Your task to perform on an android device: create a new album in the google photos Image 0: 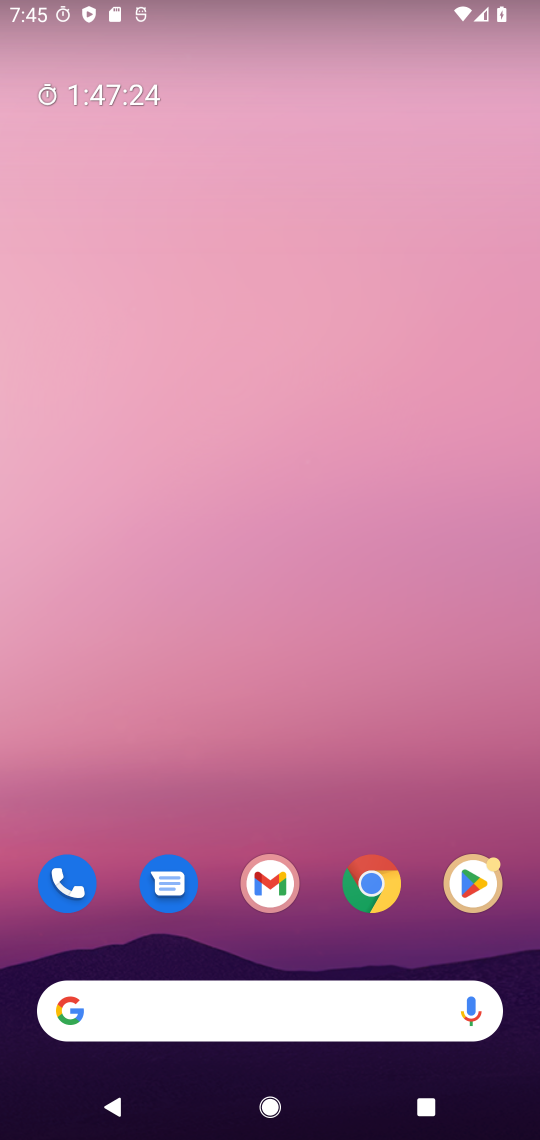
Step 0: drag from (257, 736) to (257, 281)
Your task to perform on an android device: create a new album in the google photos Image 1: 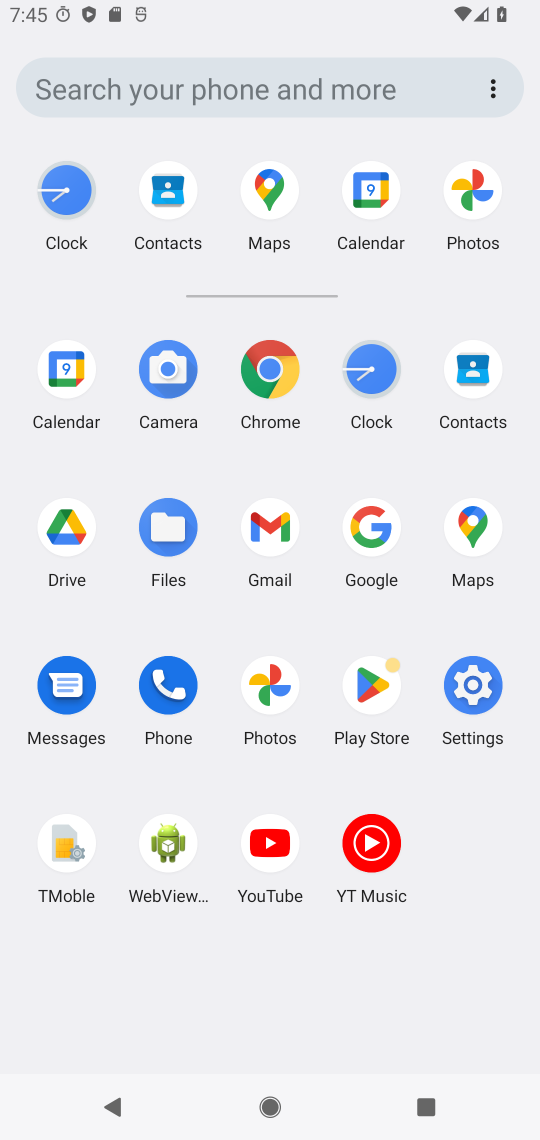
Step 1: click (462, 201)
Your task to perform on an android device: create a new album in the google photos Image 2: 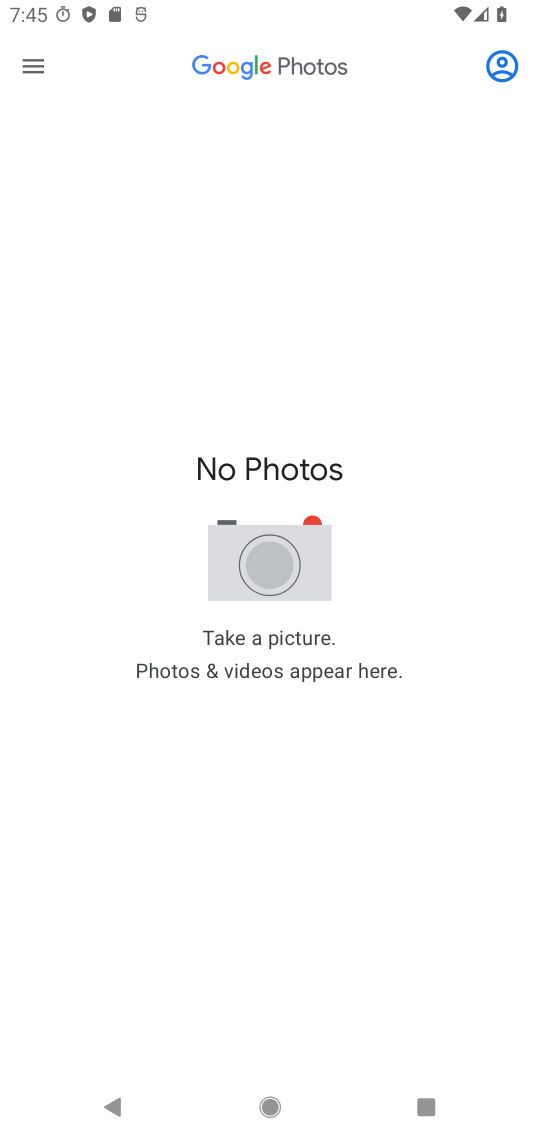
Step 2: click (38, 49)
Your task to perform on an android device: create a new album in the google photos Image 3: 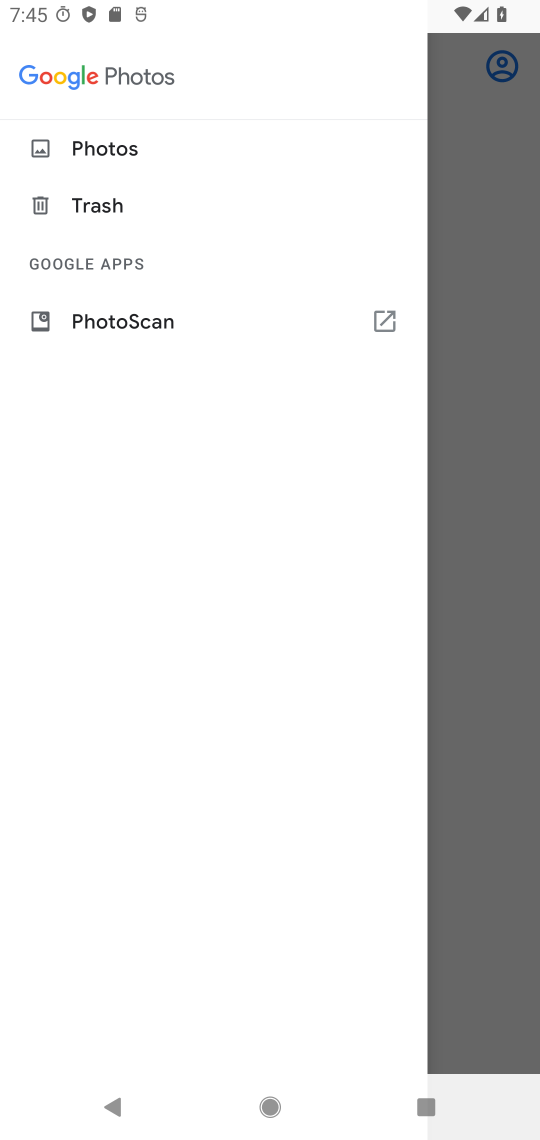
Step 3: click (137, 139)
Your task to perform on an android device: create a new album in the google photos Image 4: 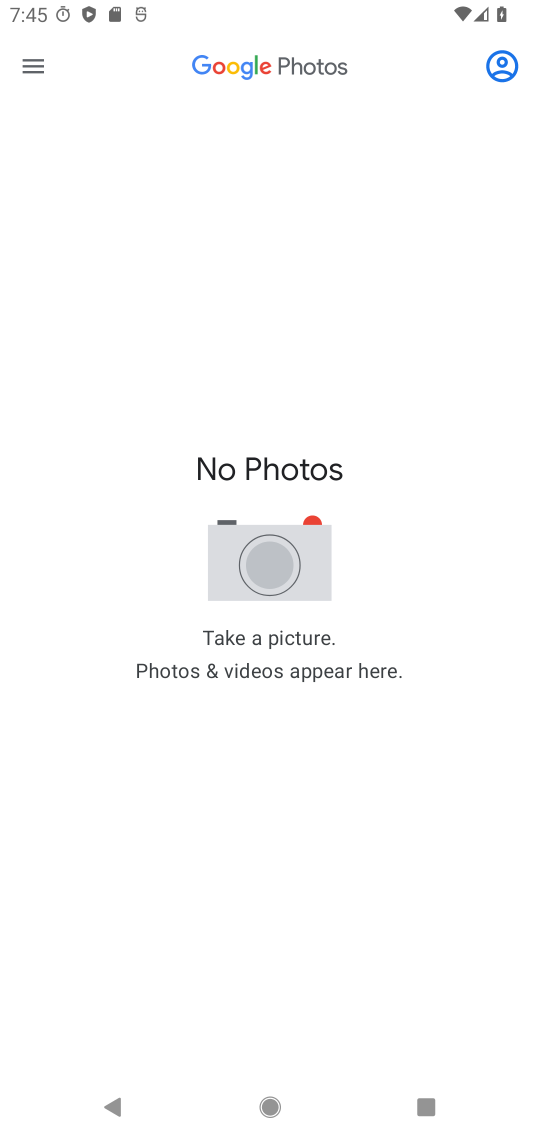
Step 4: click (496, 63)
Your task to perform on an android device: create a new album in the google photos Image 5: 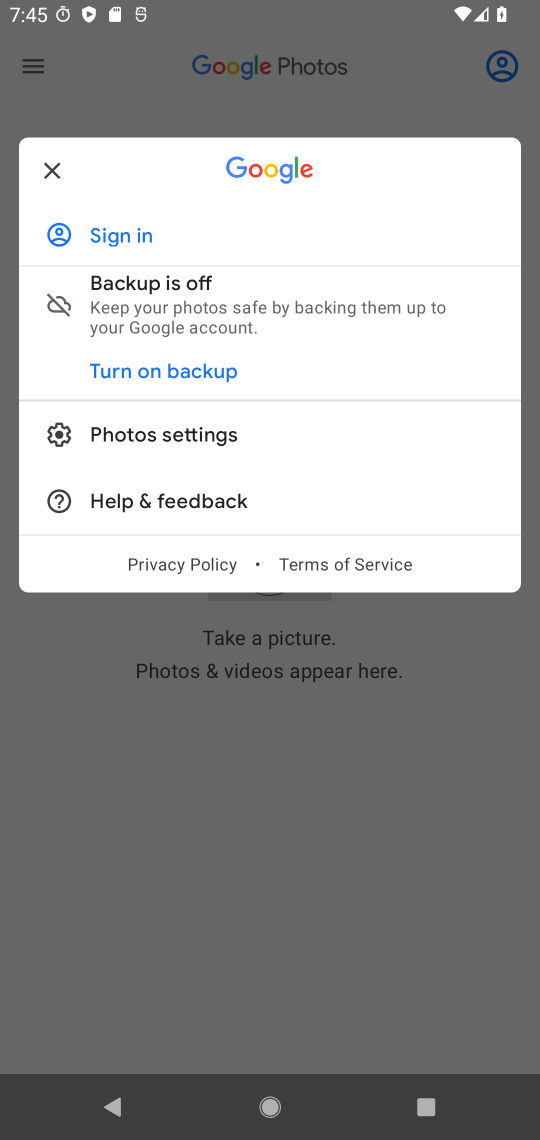
Step 5: click (382, 758)
Your task to perform on an android device: create a new album in the google photos Image 6: 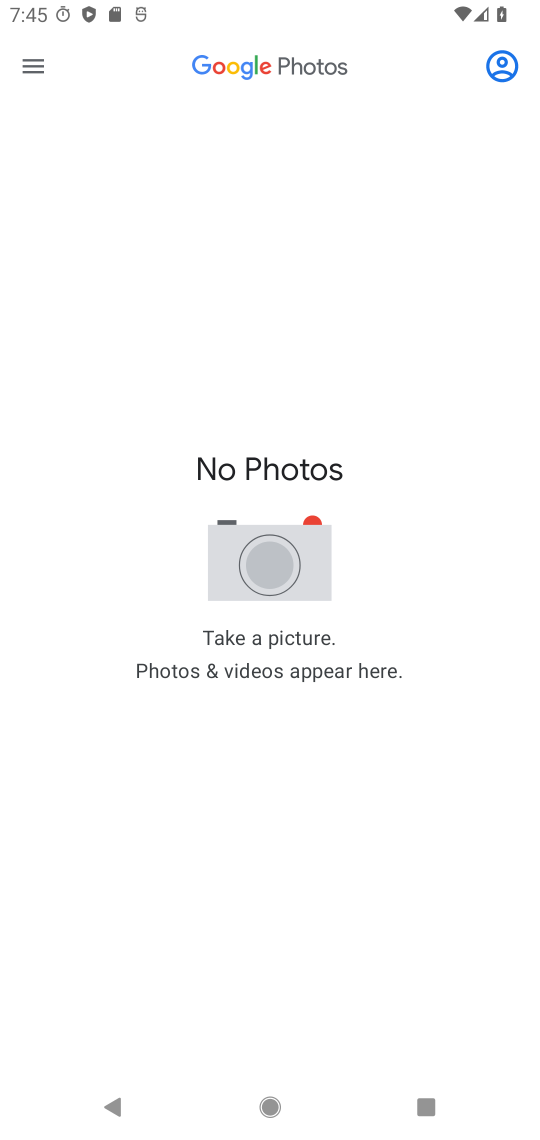
Step 6: task complete